Your task to perform on an android device: Go to Google Image 0: 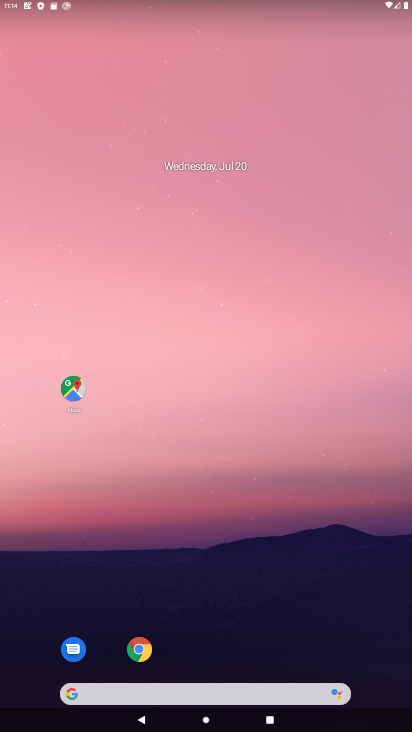
Step 0: click (248, 693)
Your task to perform on an android device: Go to Google Image 1: 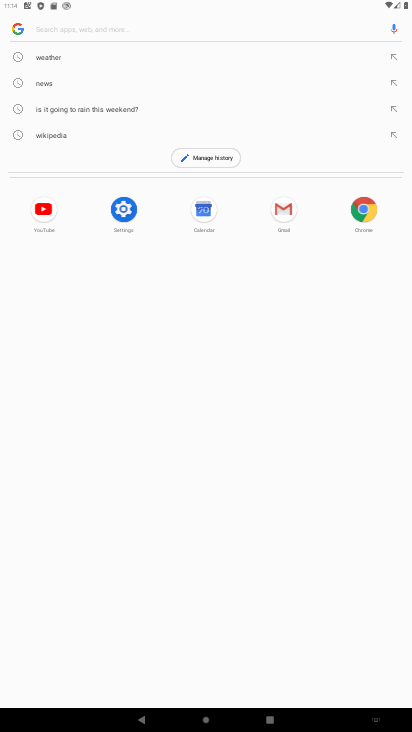
Step 1: type "google.com"
Your task to perform on an android device: Go to Google Image 2: 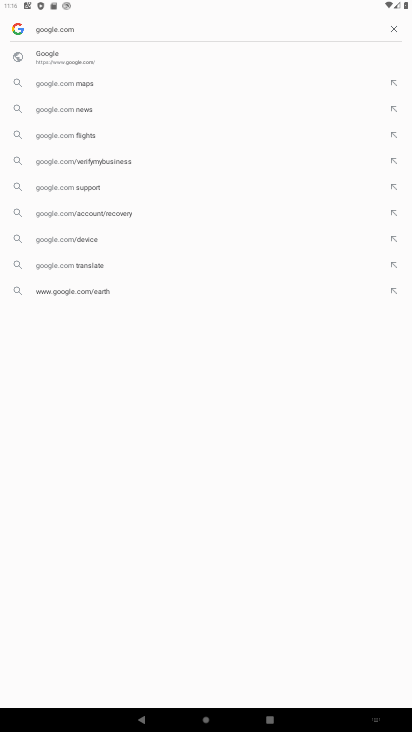
Step 2: click (138, 48)
Your task to perform on an android device: Go to Google Image 3: 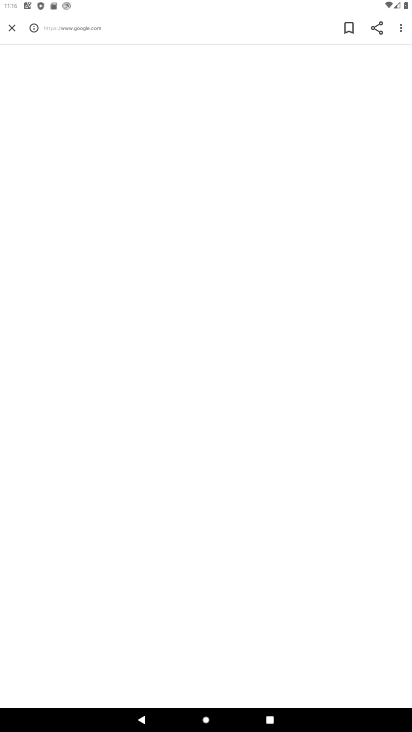
Step 3: task complete